Your task to perform on an android device: Go to Reddit.com Image 0: 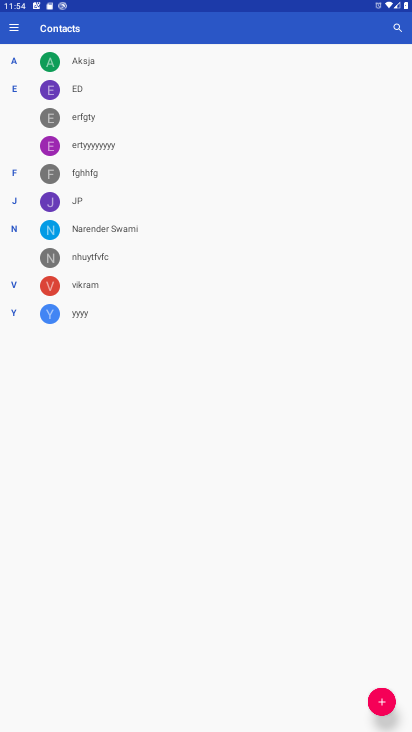
Step 0: press home button
Your task to perform on an android device: Go to Reddit.com Image 1: 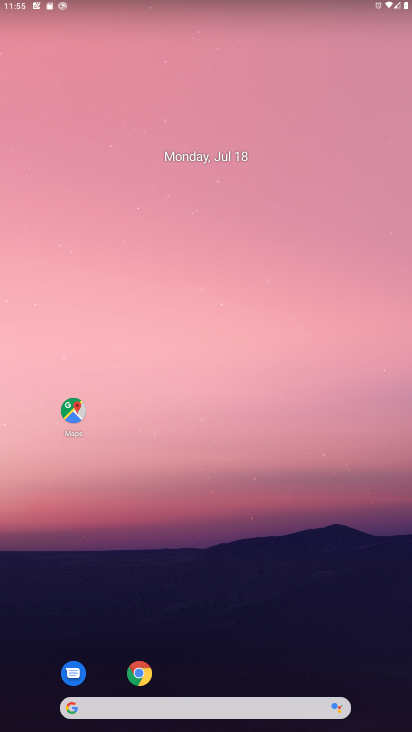
Step 1: click (133, 674)
Your task to perform on an android device: Go to Reddit.com Image 2: 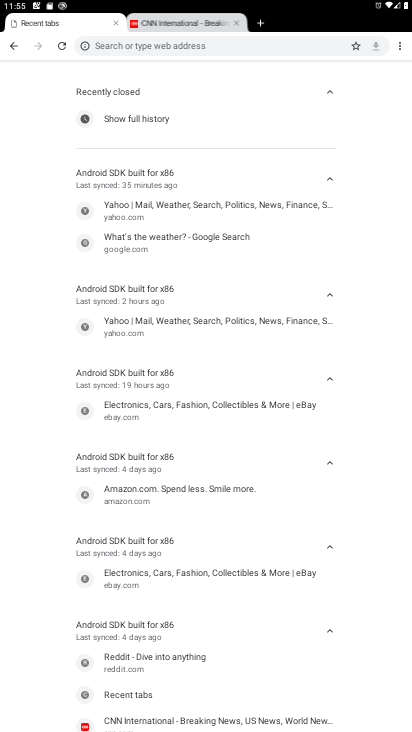
Step 2: click (262, 25)
Your task to perform on an android device: Go to Reddit.com Image 3: 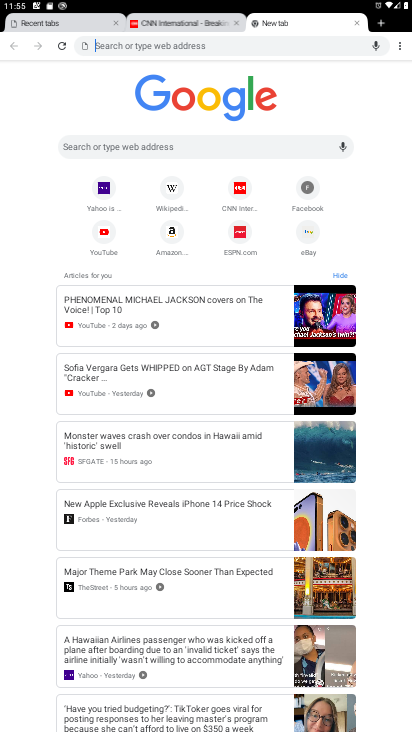
Step 3: click (175, 138)
Your task to perform on an android device: Go to Reddit.com Image 4: 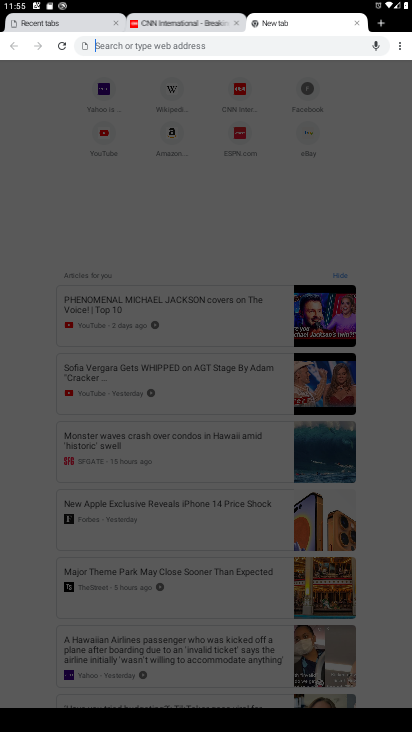
Step 4: type "Reddit.com"
Your task to perform on an android device: Go to Reddit.com Image 5: 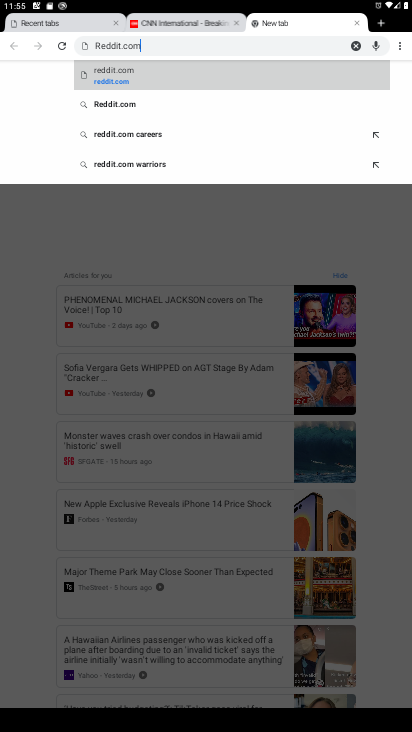
Step 5: click (198, 73)
Your task to perform on an android device: Go to Reddit.com Image 6: 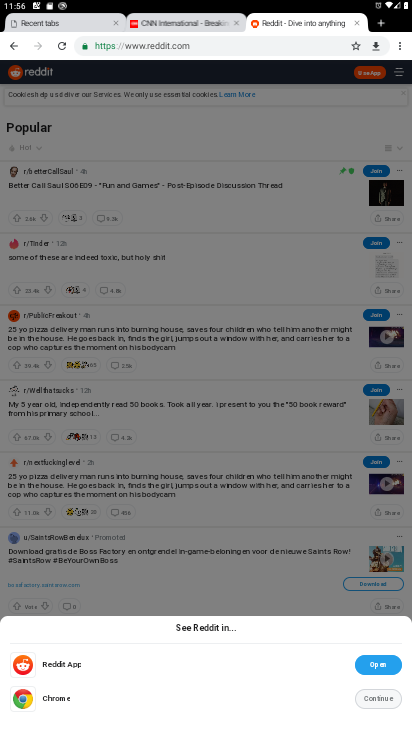
Step 6: task complete